Your task to perform on an android device: Open location settings Image 0: 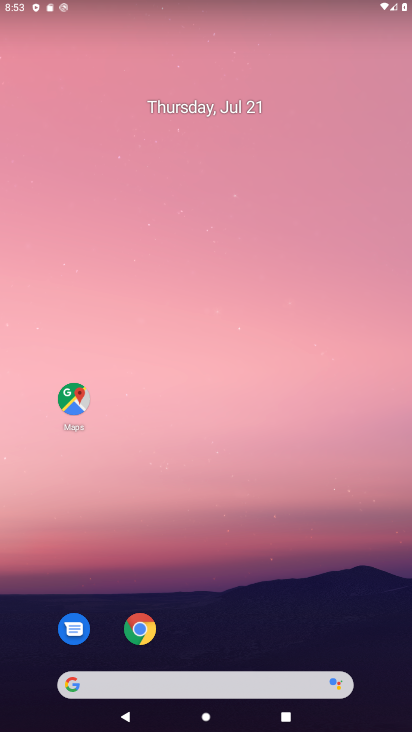
Step 0: press home button
Your task to perform on an android device: Open location settings Image 1: 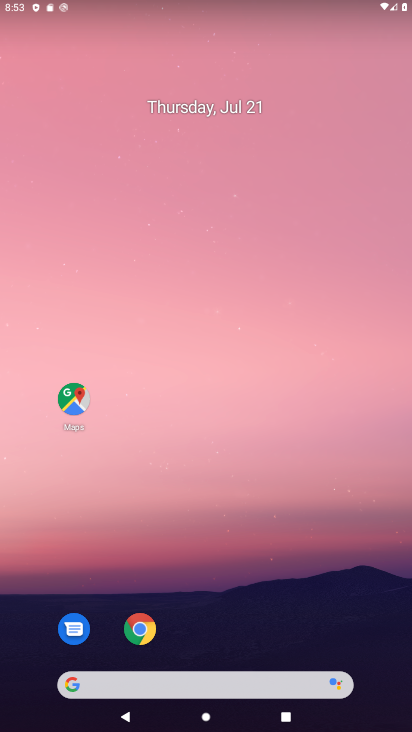
Step 1: drag from (299, 618) to (348, 123)
Your task to perform on an android device: Open location settings Image 2: 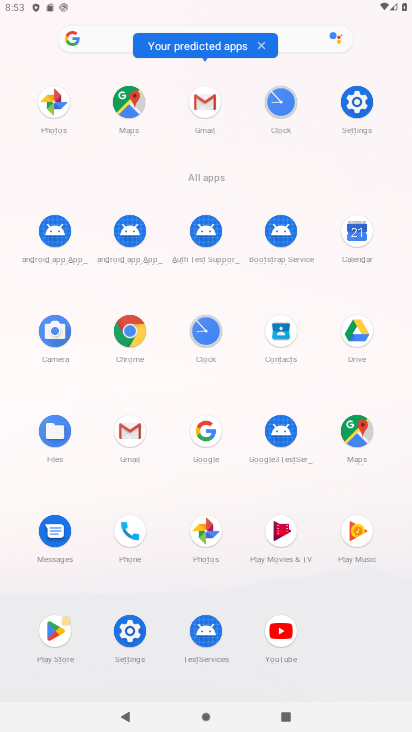
Step 2: click (356, 101)
Your task to perform on an android device: Open location settings Image 3: 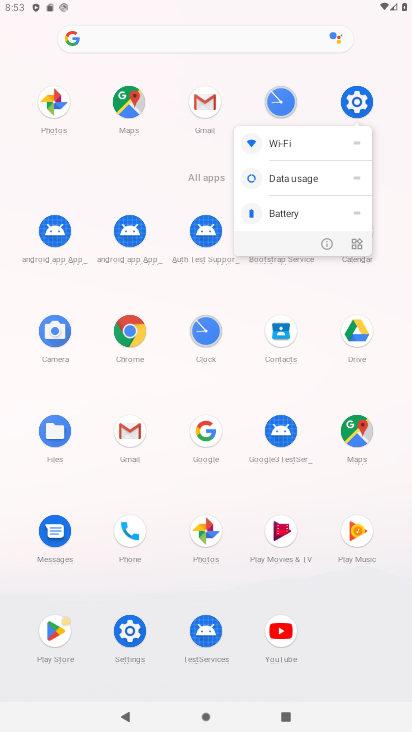
Step 3: click (350, 94)
Your task to perform on an android device: Open location settings Image 4: 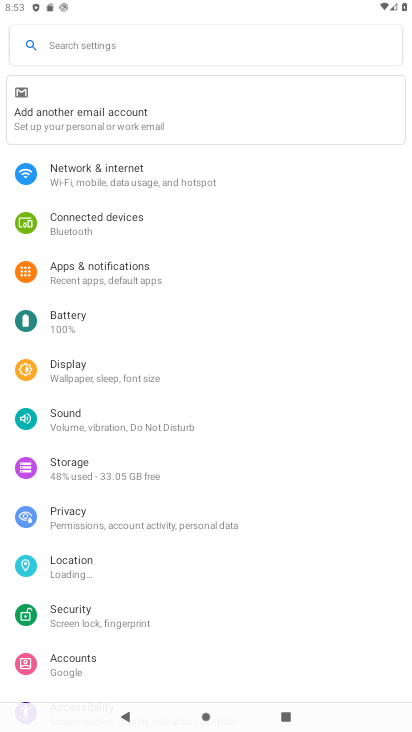
Step 4: click (65, 570)
Your task to perform on an android device: Open location settings Image 5: 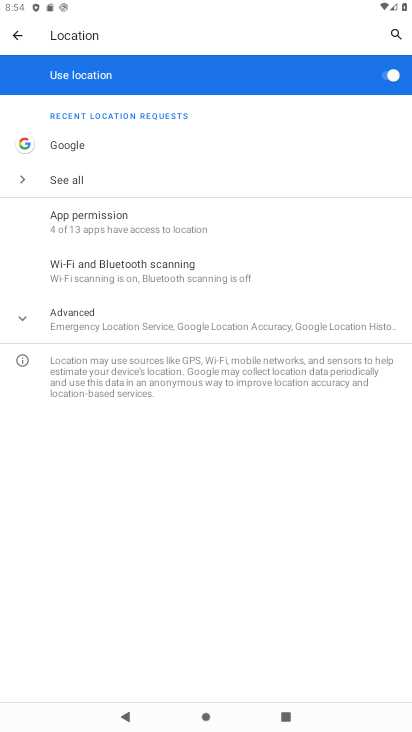
Step 5: task complete